Your task to perform on an android device: change the upload size in google photos Image 0: 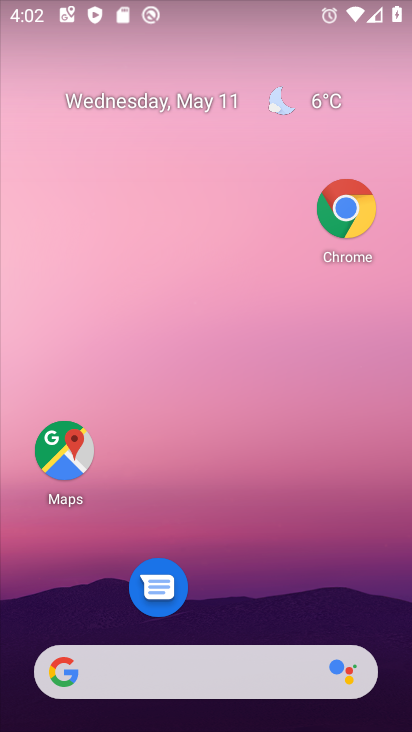
Step 0: drag from (260, 599) to (203, 56)
Your task to perform on an android device: change the upload size in google photos Image 1: 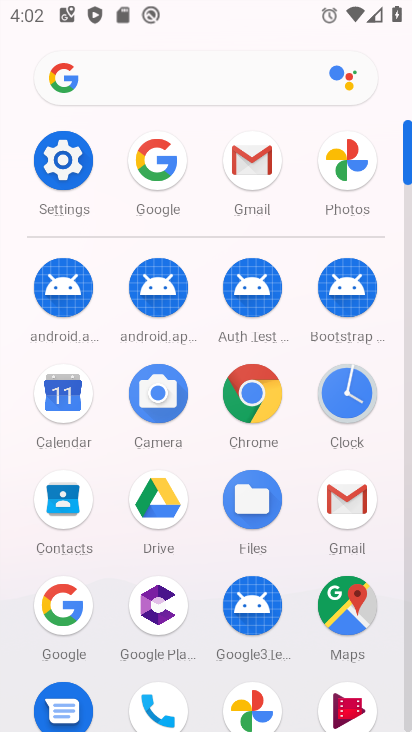
Step 1: click (259, 701)
Your task to perform on an android device: change the upload size in google photos Image 2: 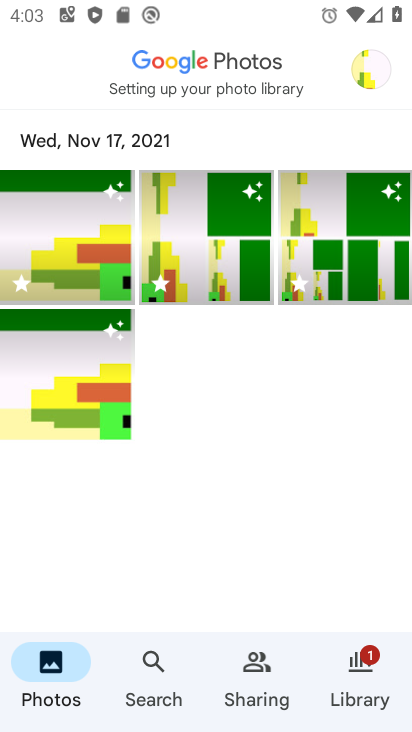
Step 2: click (377, 72)
Your task to perform on an android device: change the upload size in google photos Image 3: 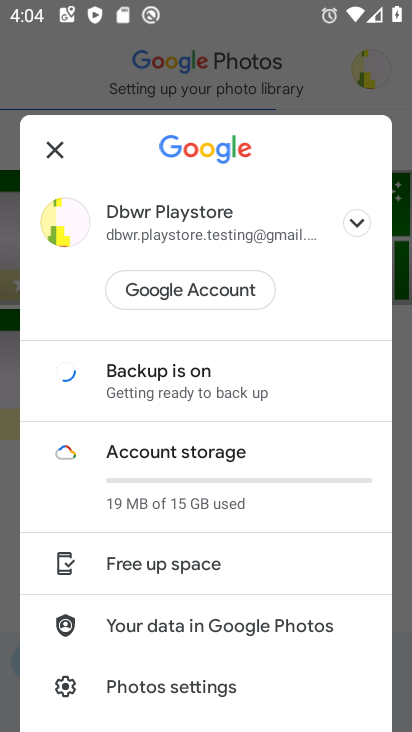
Step 3: click (177, 692)
Your task to perform on an android device: change the upload size in google photos Image 4: 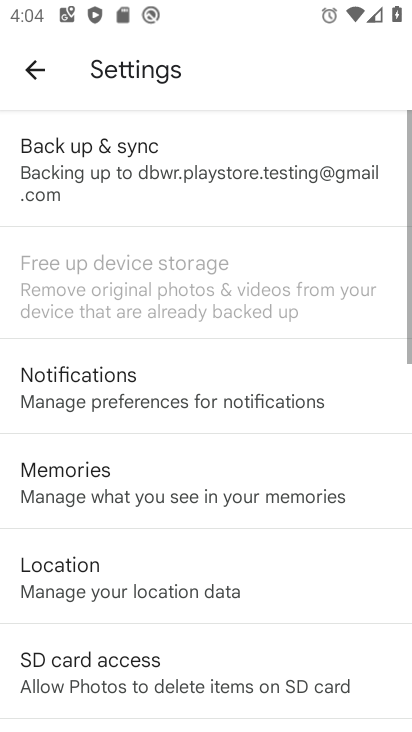
Step 4: click (173, 171)
Your task to perform on an android device: change the upload size in google photos Image 5: 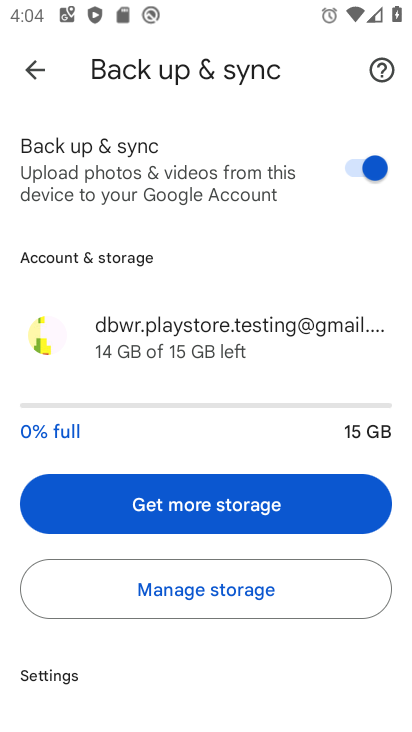
Step 5: drag from (223, 670) to (208, 302)
Your task to perform on an android device: change the upload size in google photos Image 6: 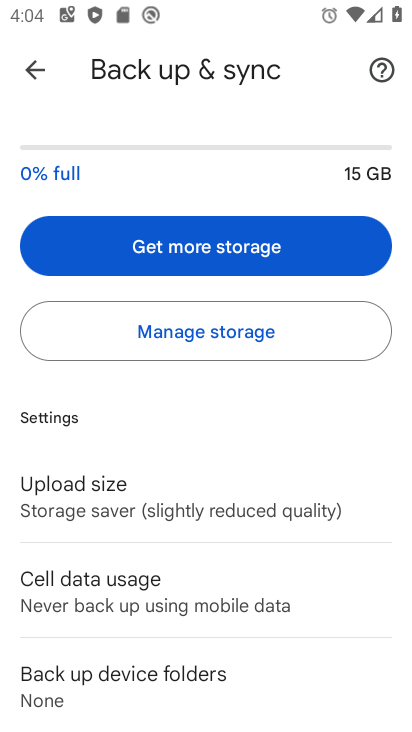
Step 6: click (206, 501)
Your task to perform on an android device: change the upload size in google photos Image 7: 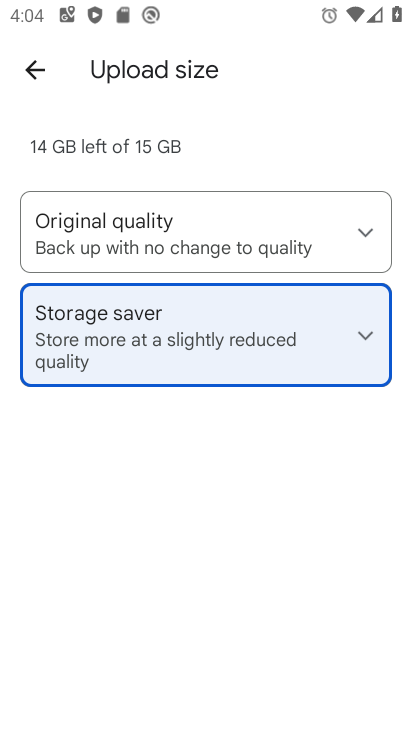
Step 7: click (228, 229)
Your task to perform on an android device: change the upload size in google photos Image 8: 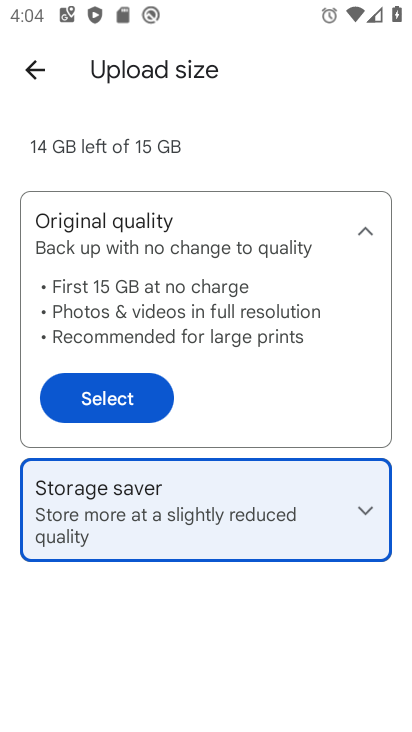
Step 8: click (143, 392)
Your task to perform on an android device: change the upload size in google photos Image 9: 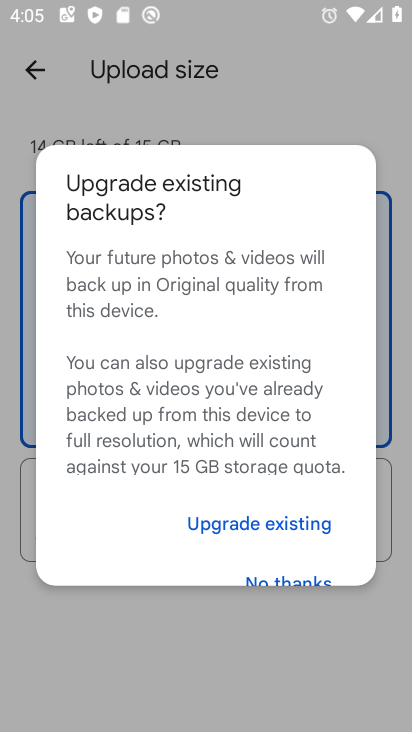
Step 9: click (283, 574)
Your task to perform on an android device: change the upload size in google photos Image 10: 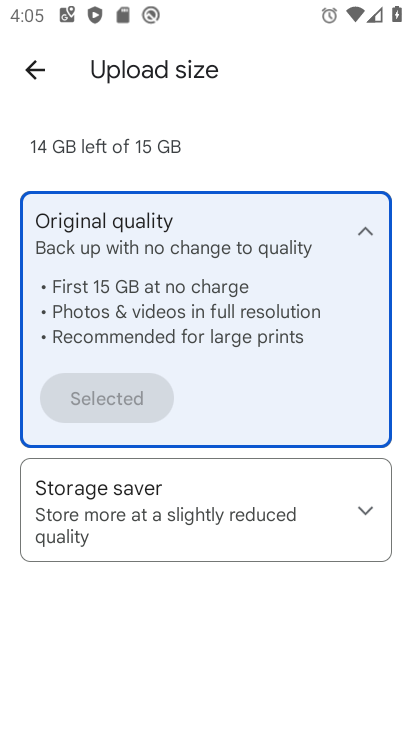
Step 10: task complete